Your task to perform on an android device: What's the weather today? Image 0: 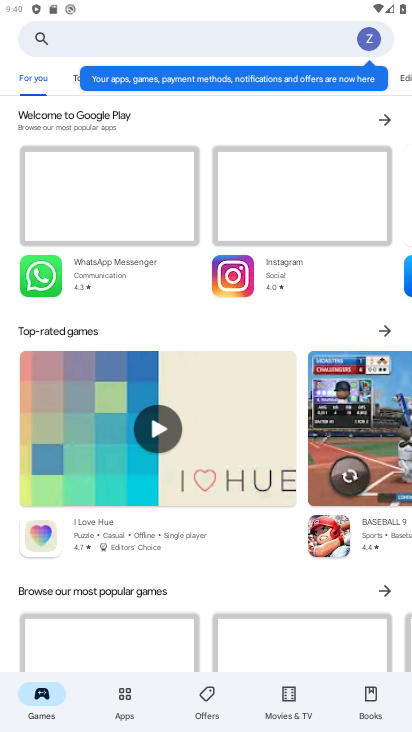
Step 0: press home button
Your task to perform on an android device: What's the weather today? Image 1: 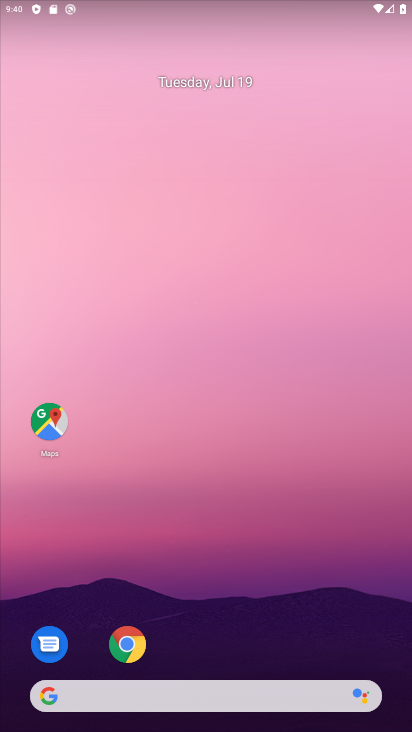
Step 1: click (241, 700)
Your task to perform on an android device: What's the weather today? Image 2: 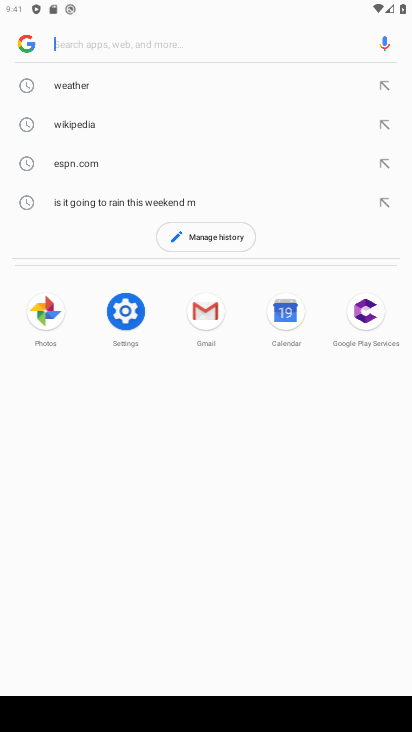
Step 2: type "What's the weather today?"
Your task to perform on an android device: What's the weather today? Image 3: 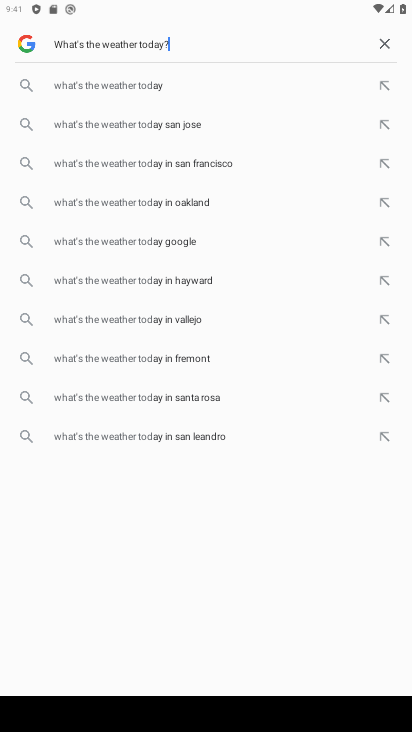
Step 3: task complete